Your task to perform on an android device: refresh tabs in the chrome app Image 0: 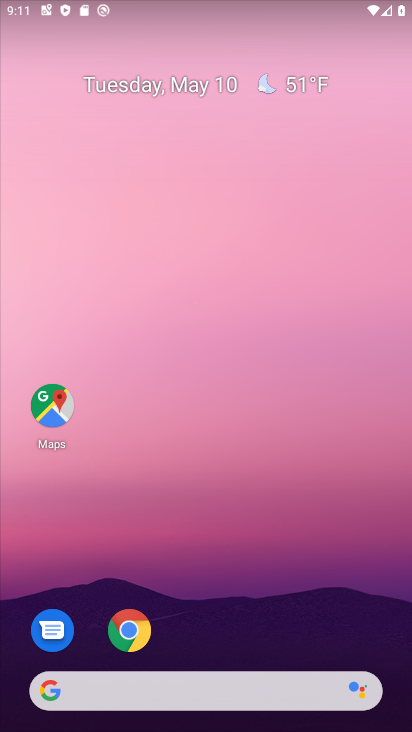
Step 0: click (128, 630)
Your task to perform on an android device: refresh tabs in the chrome app Image 1: 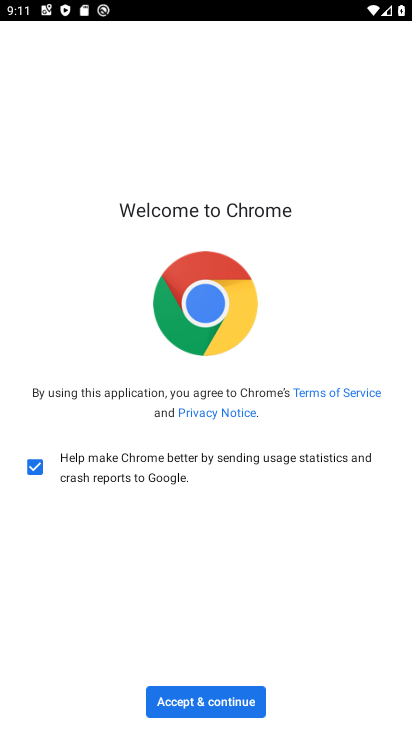
Step 1: click (195, 698)
Your task to perform on an android device: refresh tabs in the chrome app Image 2: 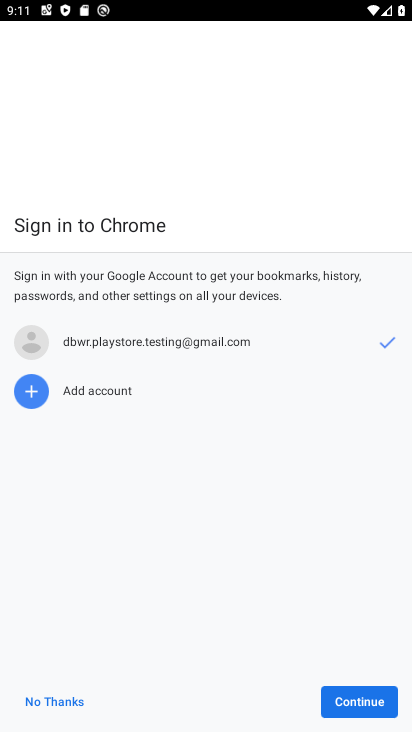
Step 2: click (347, 697)
Your task to perform on an android device: refresh tabs in the chrome app Image 3: 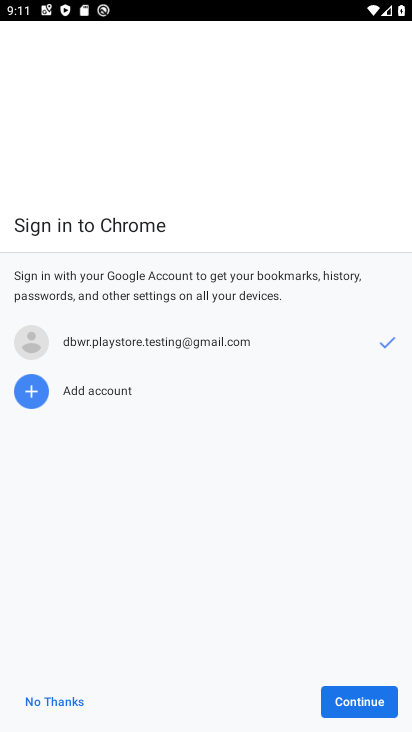
Step 3: click (347, 697)
Your task to perform on an android device: refresh tabs in the chrome app Image 4: 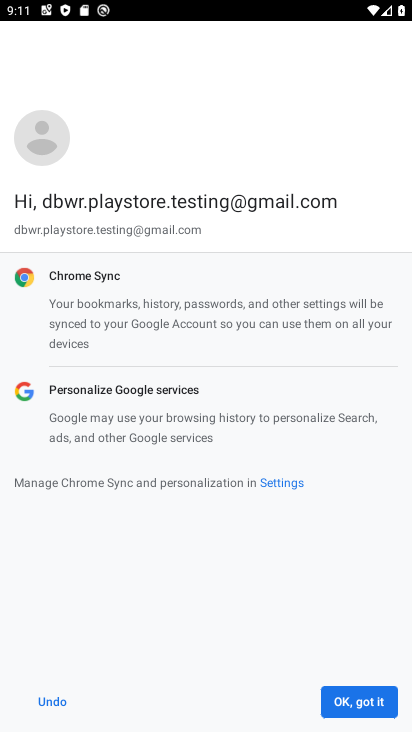
Step 4: click (347, 697)
Your task to perform on an android device: refresh tabs in the chrome app Image 5: 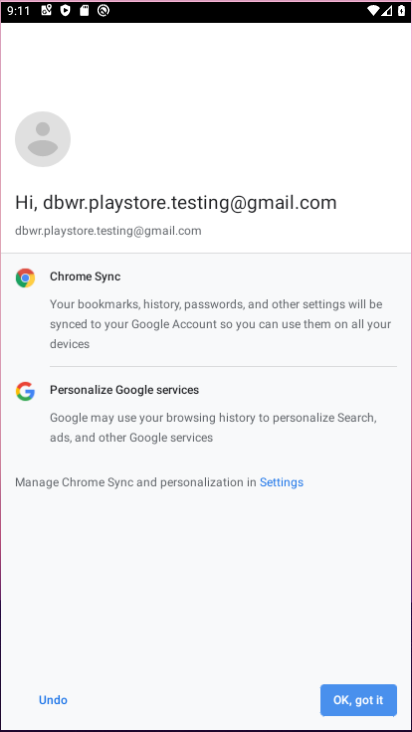
Step 5: click (347, 697)
Your task to perform on an android device: refresh tabs in the chrome app Image 6: 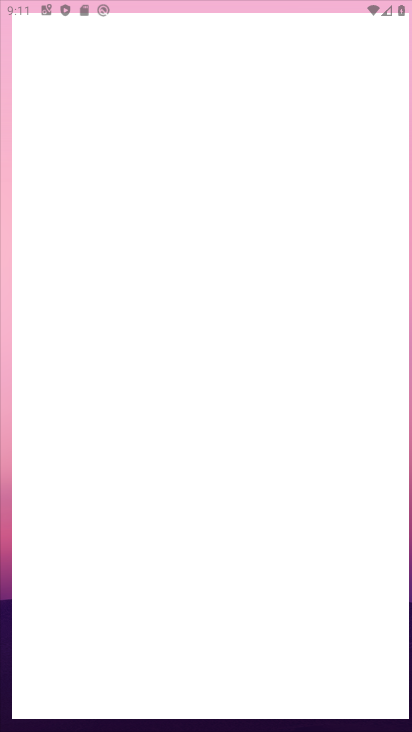
Step 6: click (347, 697)
Your task to perform on an android device: refresh tabs in the chrome app Image 7: 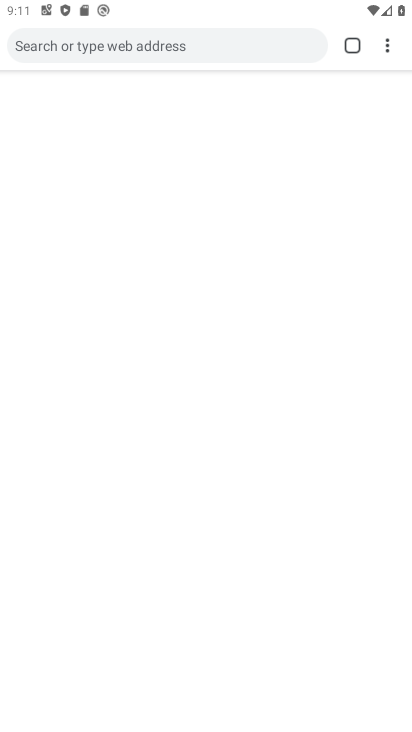
Step 7: click (347, 697)
Your task to perform on an android device: refresh tabs in the chrome app Image 8: 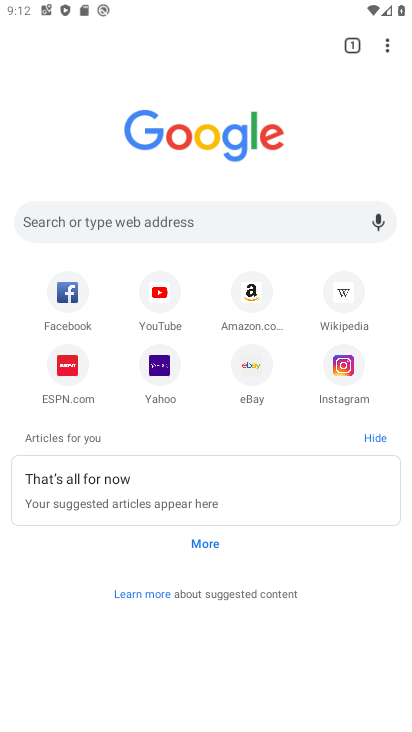
Step 8: click (386, 49)
Your task to perform on an android device: refresh tabs in the chrome app Image 9: 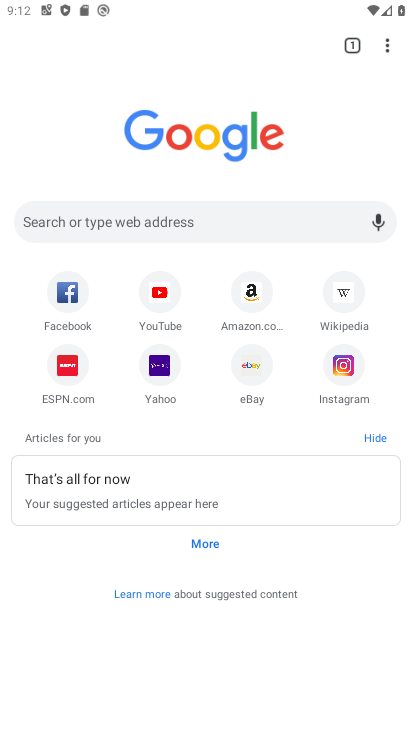
Step 9: task complete